Your task to perform on an android device: Search for pizza restaurants on Maps Image 0: 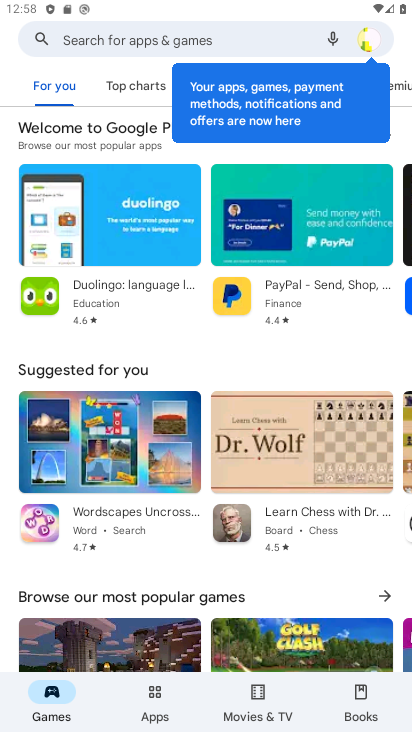
Step 0: press home button
Your task to perform on an android device: Search for pizza restaurants on Maps Image 1: 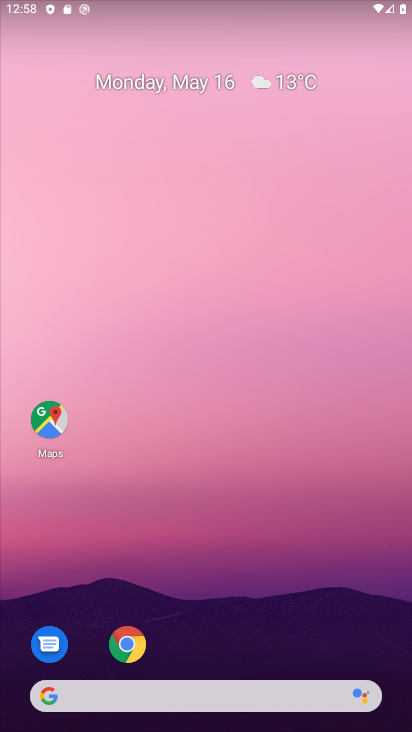
Step 1: drag from (240, 696) to (291, 266)
Your task to perform on an android device: Search for pizza restaurants on Maps Image 2: 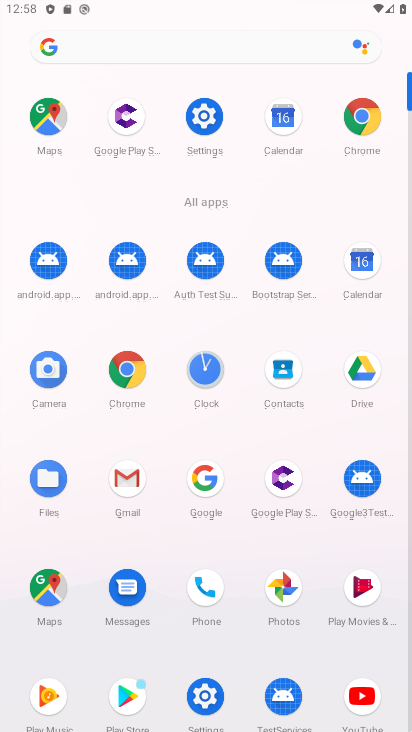
Step 2: click (49, 606)
Your task to perform on an android device: Search for pizza restaurants on Maps Image 3: 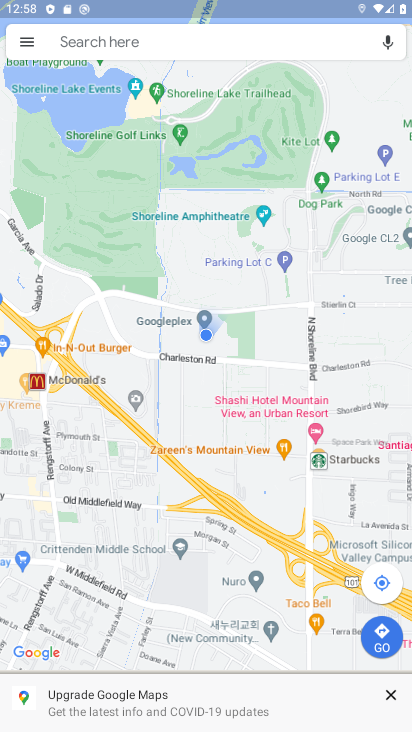
Step 3: click (266, 44)
Your task to perform on an android device: Search for pizza restaurants on Maps Image 4: 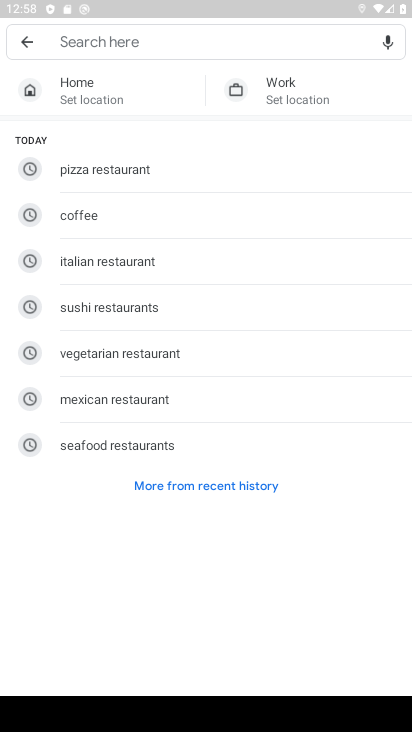
Step 4: click (137, 170)
Your task to perform on an android device: Search for pizza restaurants on Maps Image 5: 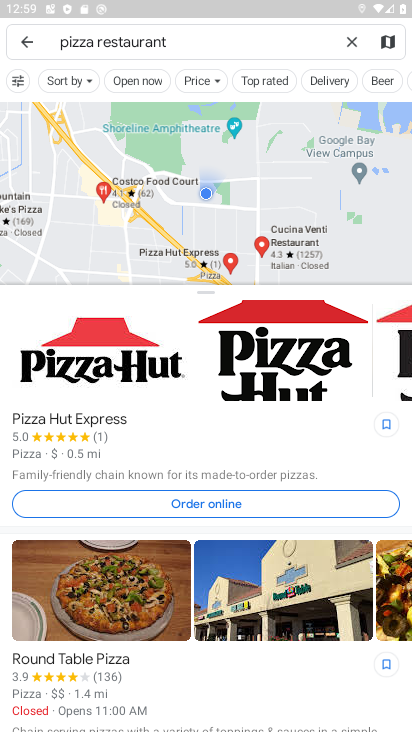
Step 5: task complete